Your task to perform on an android device: turn notification dots off Image 0: 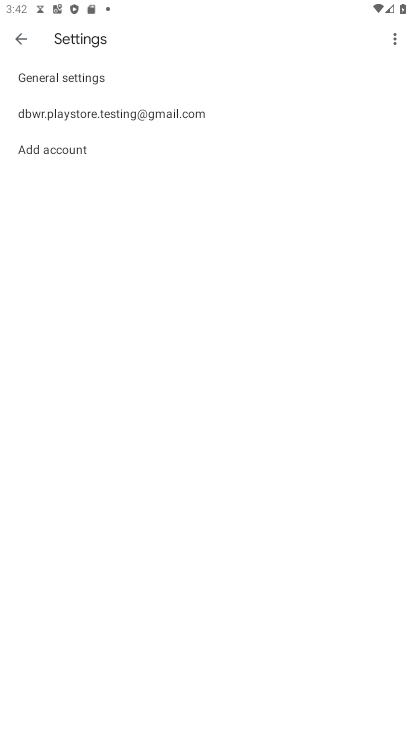
Step 0: press back button
Your task to perform on an android device: turn notification dots off Image 1: 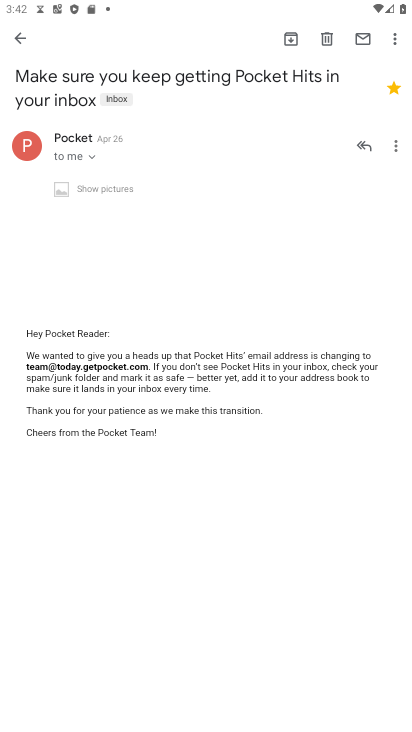
Step 1: press back button
Your task to perform on an android device: turn notification dots off Image 2: 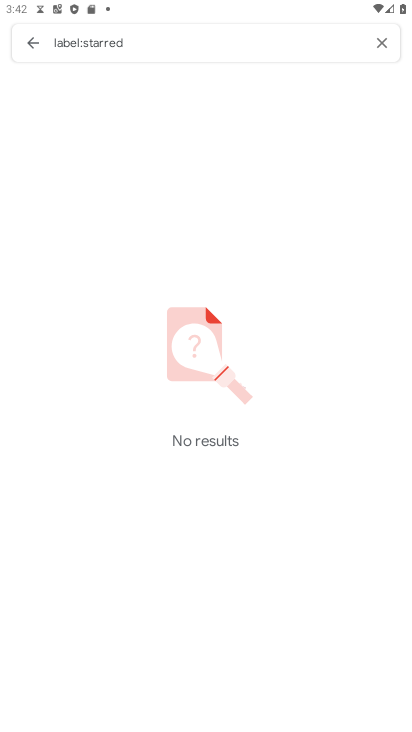
Step 2: press back button
Your task to perform on an android device: turn notification dots off Image 3: 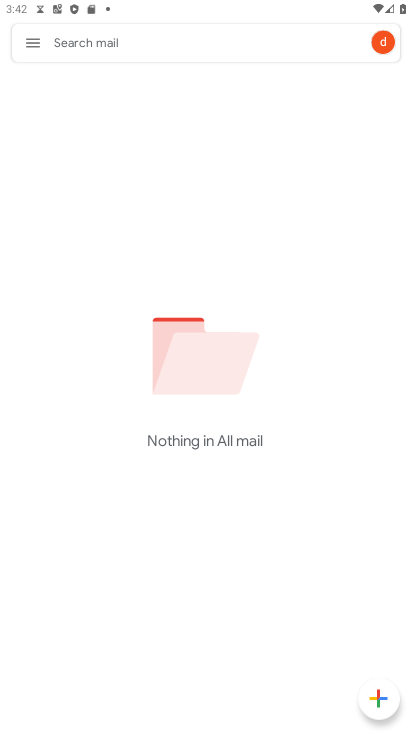
Step 3: press back button
Your task to perform on an android device: turn notification dots off Image 4: 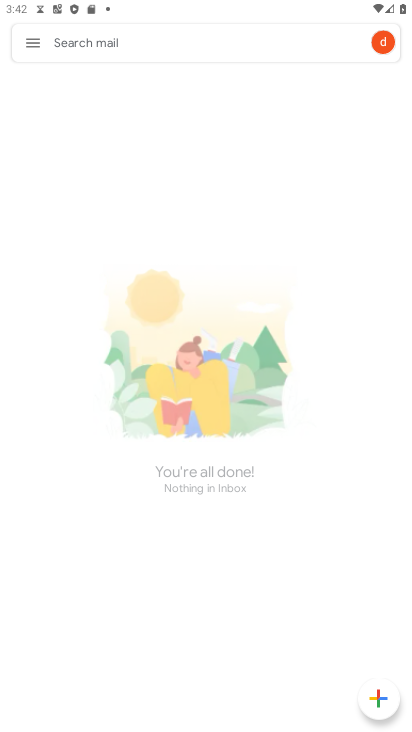
Step 4: press home button
Your task to perform on an android device: turn notification dots off Image 5: 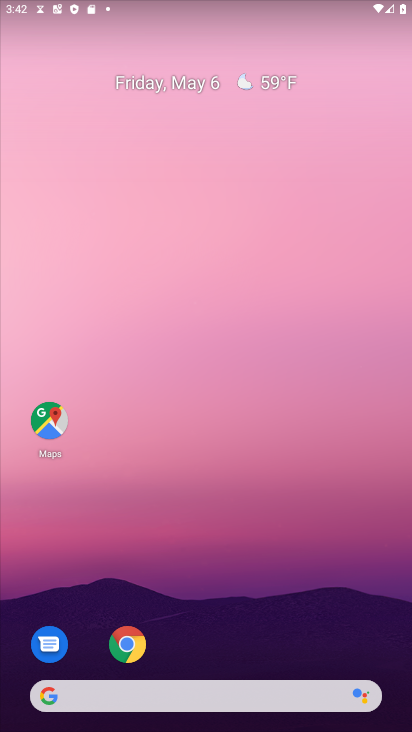
Step 5: drag from (240, 595) to (189, 11)
Your task to perform on an android device: turn notification dots off Image 6: 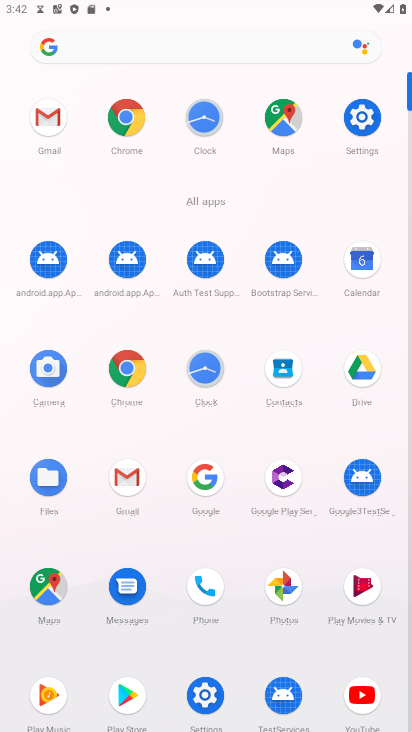
Step 6: click (203, 693)
Your task to perform on an android device: turn notification dots off Image 7: 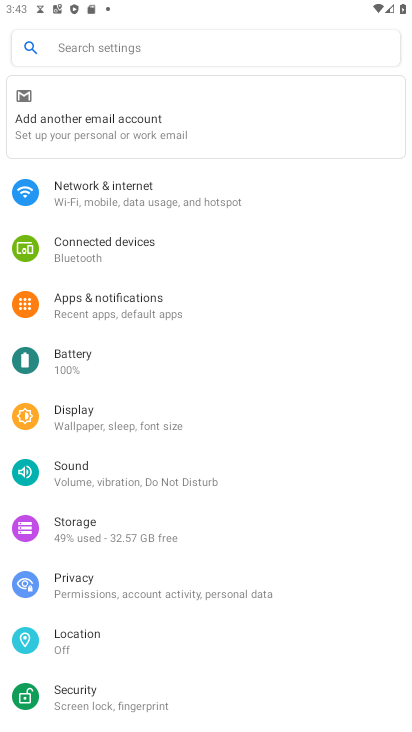
Step 7: drag from (119, 393) to (122, 337)
Your task to perform on an android device: turn notification dots off Image 8: 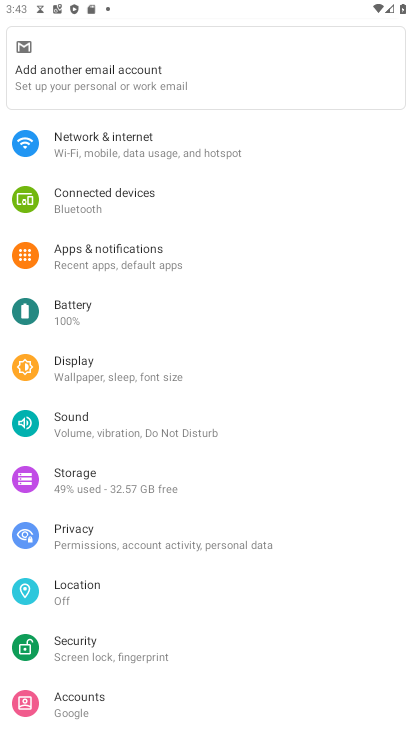
Step 8: click (119, 254)
Your task to perform on an android device: turn notification dots off Image 9: 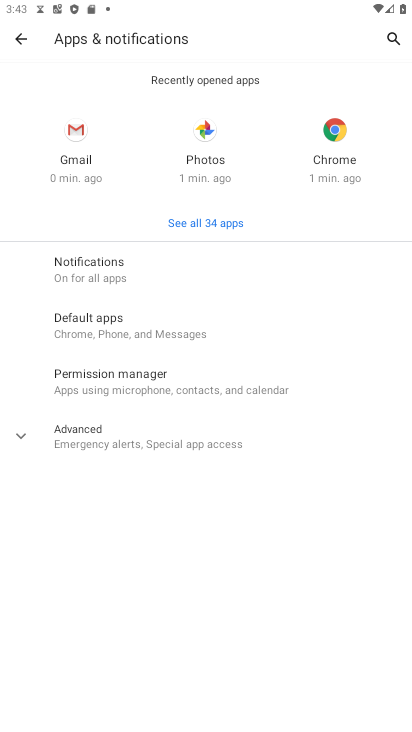
Step 9: click (105, 260)
Your task to perform on an android device: turn notification dots off Image 10: 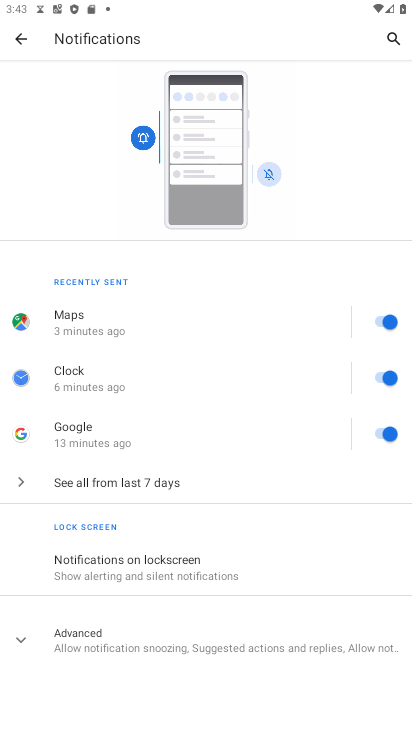
Step 10: click (171, 650)
Your task to perform on an android device: turn notification dots off Image 11: 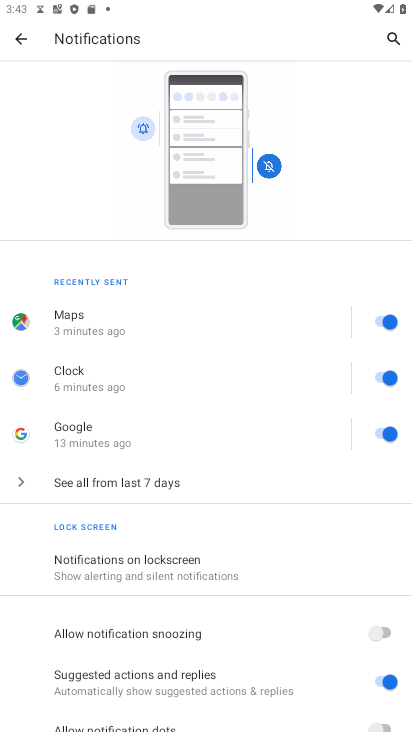
Step 11: task complete